Your task to perform on an android device: turn off data saver in the chrome app Image 0: 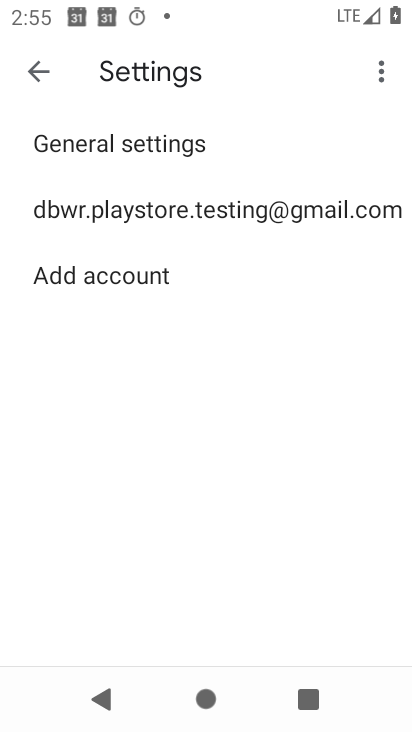
Step 0: press home button
Your task to perform on an android device: turn off data saver in the chrome app Image 1: 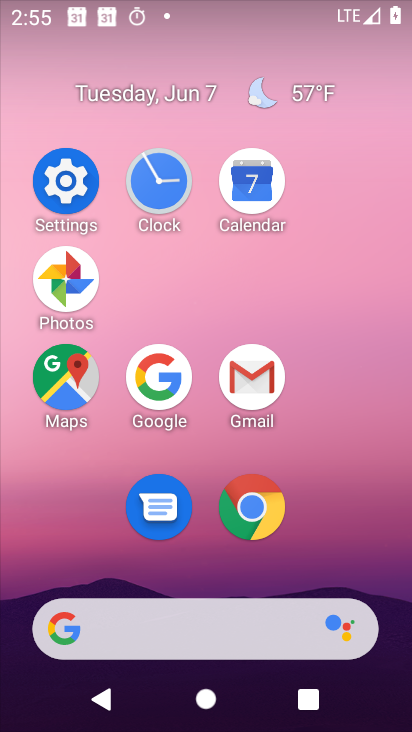
Step 1: click (236, 508)
Your task to perform on an android device: turn off data saver in the chrome app Image 2: 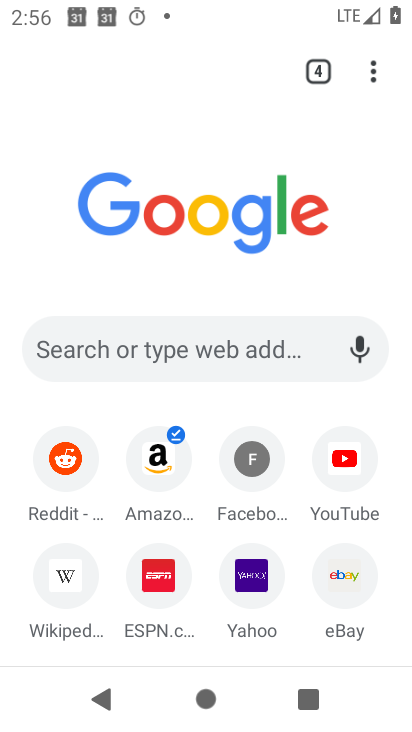
Step 2: click (385, 70)
Your task to perform on an android device: turn off data saver in the chrome app Image 3: 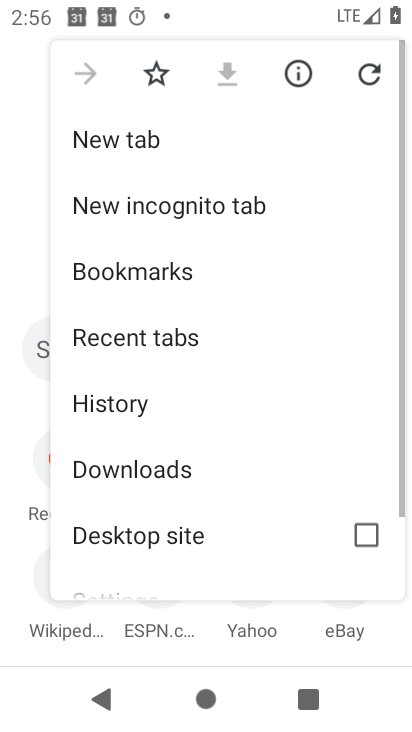
Step 3: drag from (219, 454) to (257, 136)
Your task to perform on an android device: turn off data saver in the chrome app Image 4: 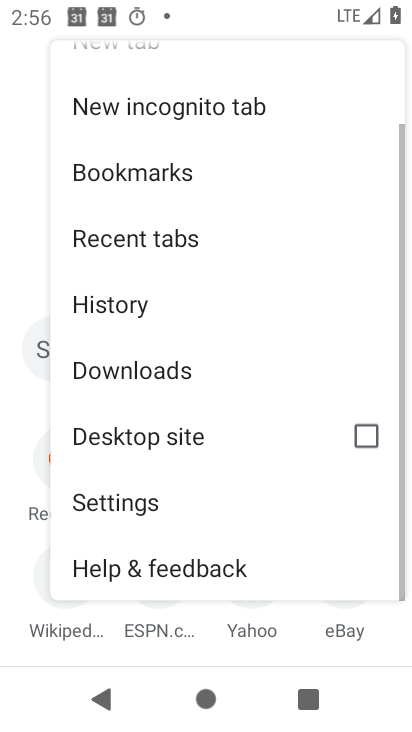
Step 4: click (172, 507)
Your task to perform on an android device: turn off data saver in the chrome app Image 5: 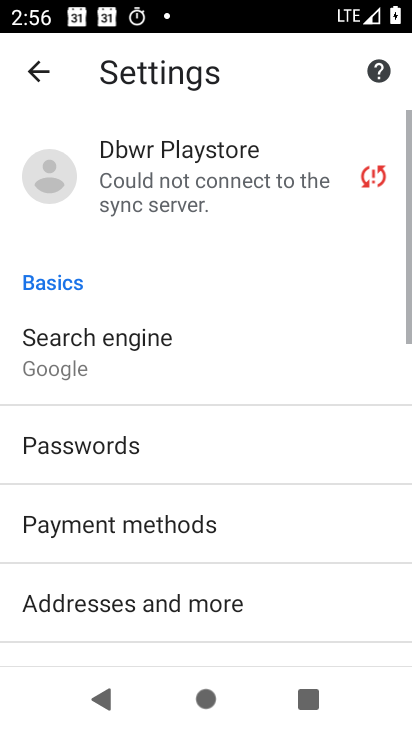
Step 5: drag from (172, 507) to (218, 236)
Your task to perform on an android device: turn off data saver in the chrome app Image 6: 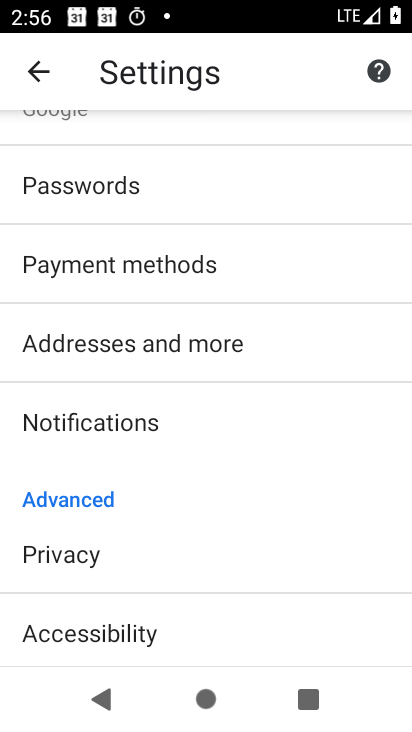
Step 6: drag from (257, 475) to (301, 242)
Your task to perform on an android device: turn off data saver in the chrome app Image 7: 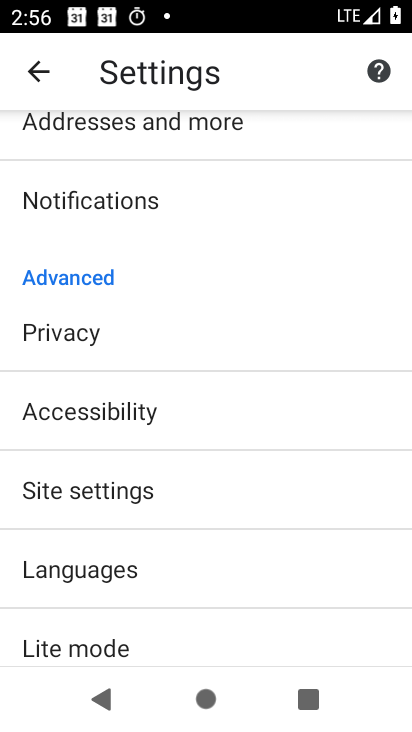
Step 7: click (236, 638)
Your task to perform on an android device: turn off data saver in the chrome app Image 8: 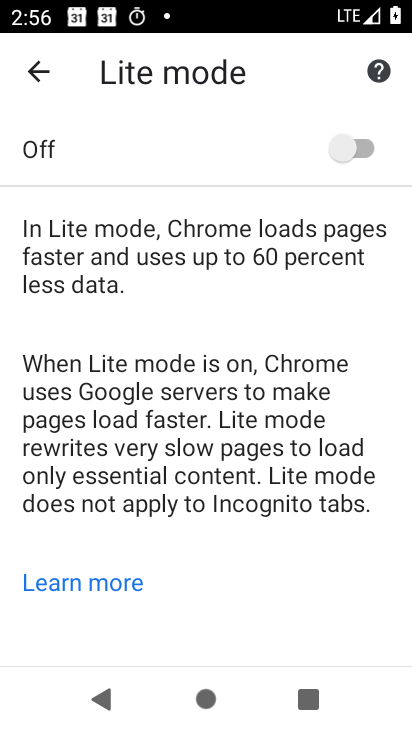
Step 8: task complete